Your task to perform on an android device: Go to wifi settings Image 0: 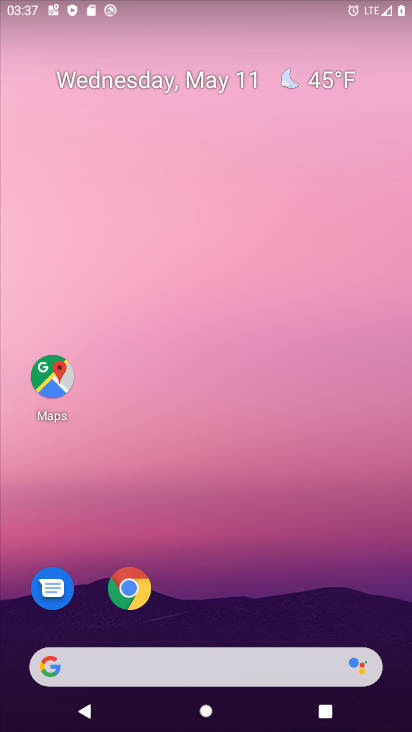
Step 0: drag from (189, 568) to (202, 123)
Your task to perform on an android device: Go to wifi settings Image 1: 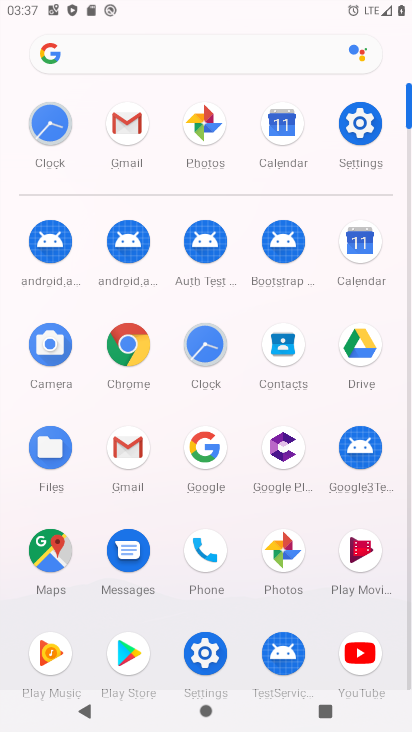
Step 1: click (374, 144)
Your task to perform on an android device: Go to wifi settings Image 2: 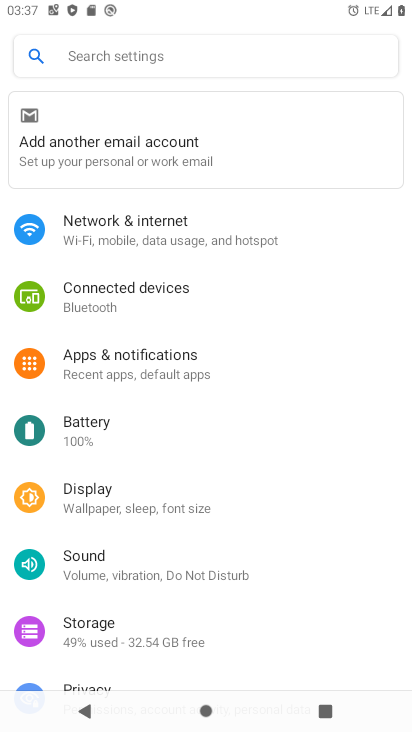
Step 2: click (172, 215)
Your task to perform on an android device: Go to wifi settings Image 3: 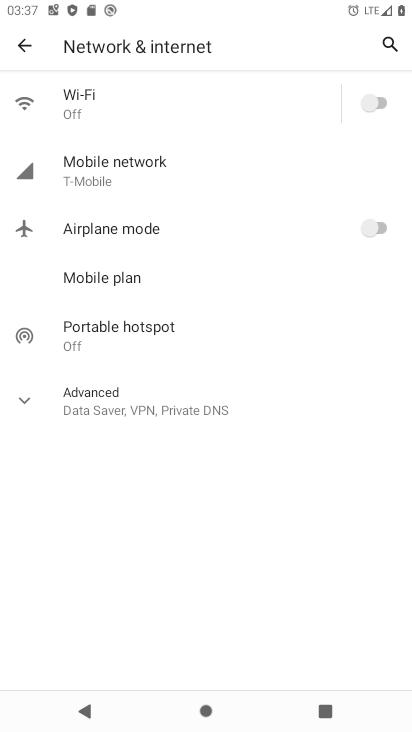
Step 3: click (124, 109)
Your task to perform on an android device: Go to wifi settings Image 4: 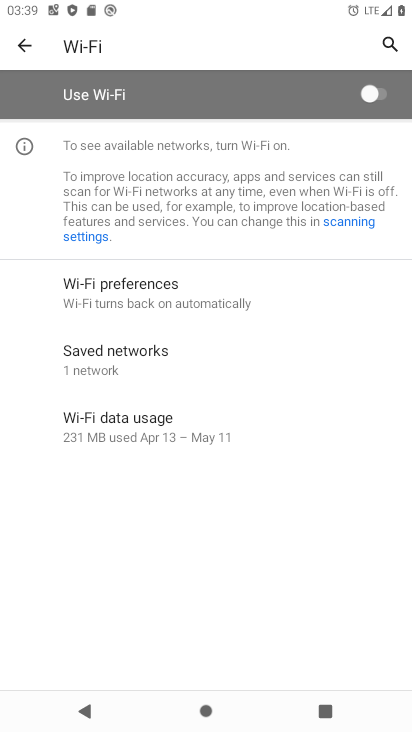
Step 4: task complete